Your task to perform on an android device: Is it going to rain tomorrow? Image 0: 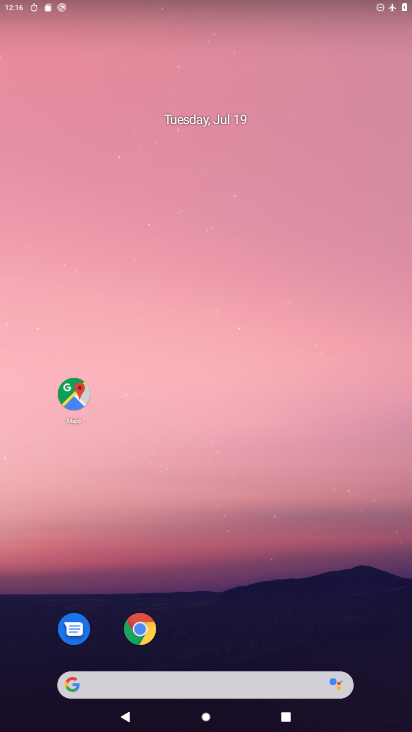
Step 0: drag from (301, 624) to (323, 76)
Your task to perform on an android device: Is it going to rain tomorrow? Image 1: 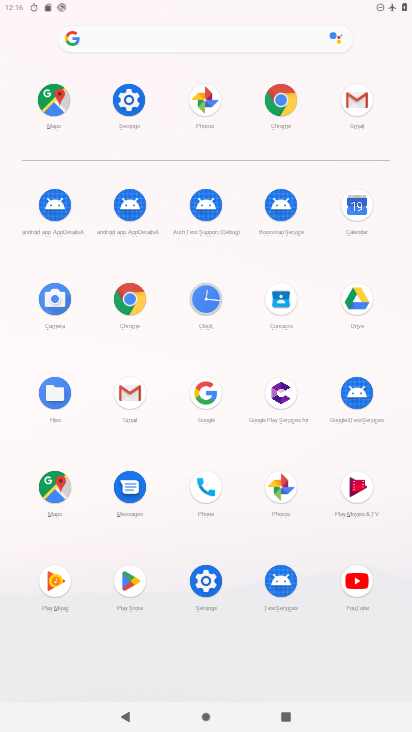
Step 1: click (288, 101)
Your task to perform on an android device: Is it going to rain tomorrow? Image 2: 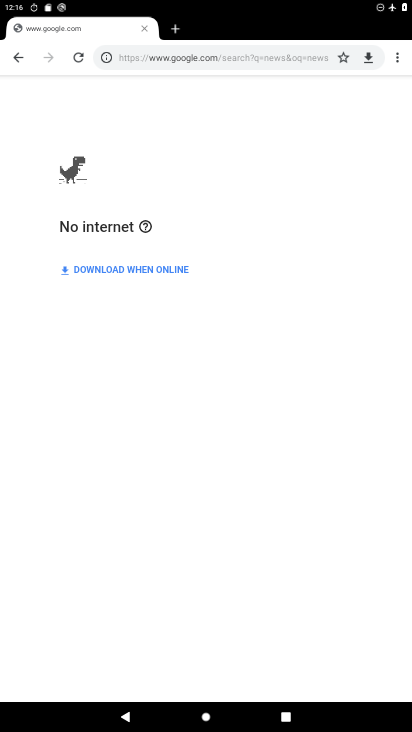
Step 2: click (258, 55)
Your task to perform on an android device: Is it going to rain tomorrow? Image 3: 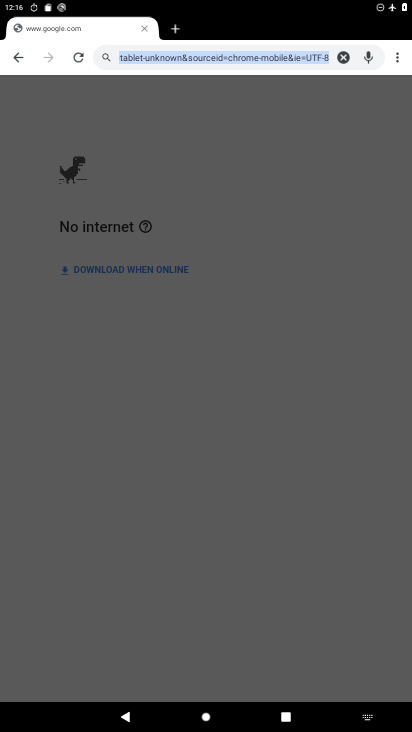
Step 3: type "weather"
Your task to perform on an android device: Is it going to rain tomorrow? Image 4: 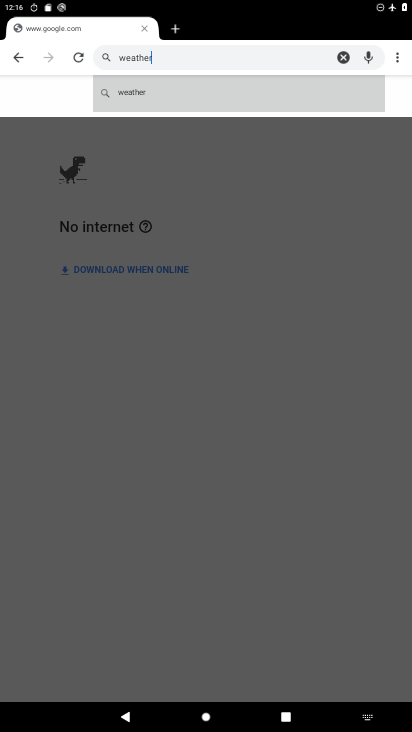
Step 4: click (141, 90)
Your task to perform on an android device: Is it going to rain tomorrow? Image 5: 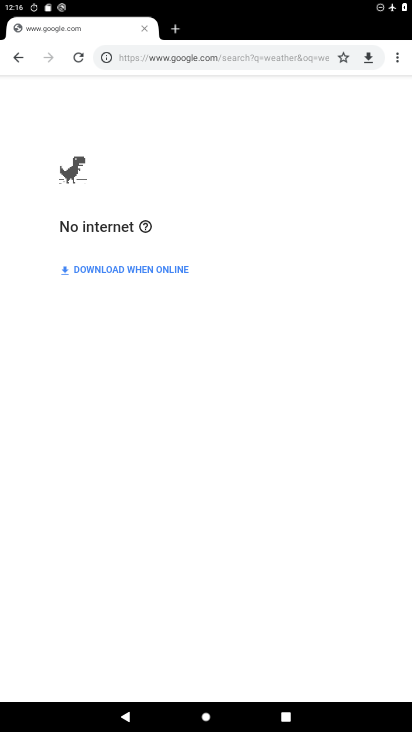
Step 5: task complete